Your task to perform on an android device: Search for Italian restaurants on Maps Image 0: 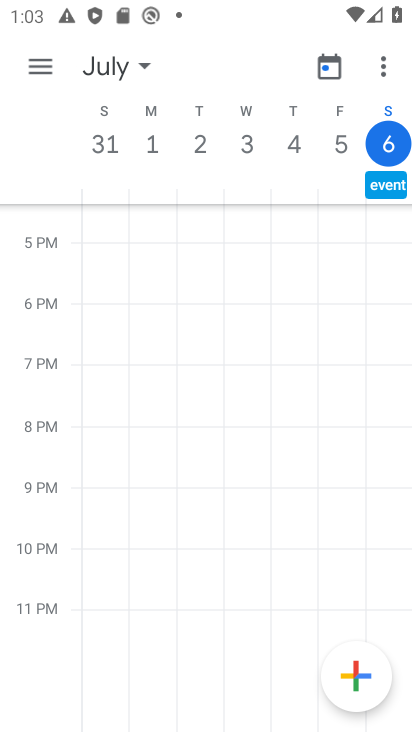
Step 0: press home button
Your task to perform on an android device: Search for Italian restaurants on Maps Image 1: 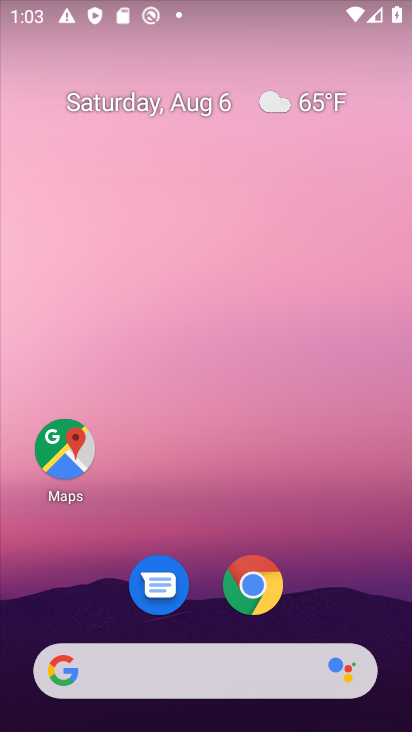
Step 1: drag from (209, 527) to (199, 0)
Your task to perform on an android device: Search for Italian restaurants on Maps Image 2: 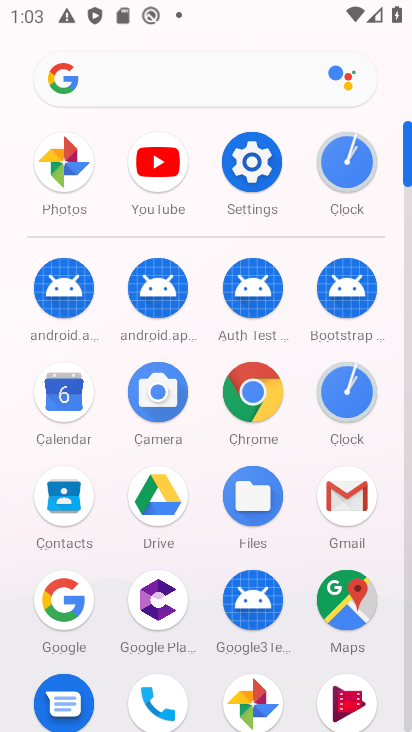
Step 2: click (347, 601)
Your task to perform on an android device: Search for Italian restaurants on Maps Image 3: 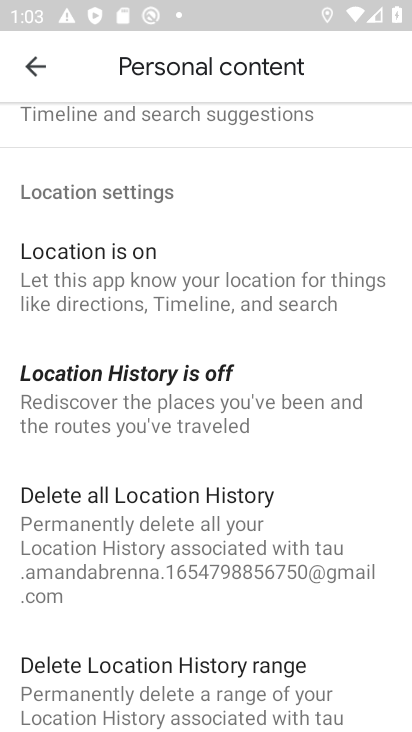
Step 3: click (40, 62)
Your task to perform on an android device: Search for Italian restaurants on Maps Image 4: 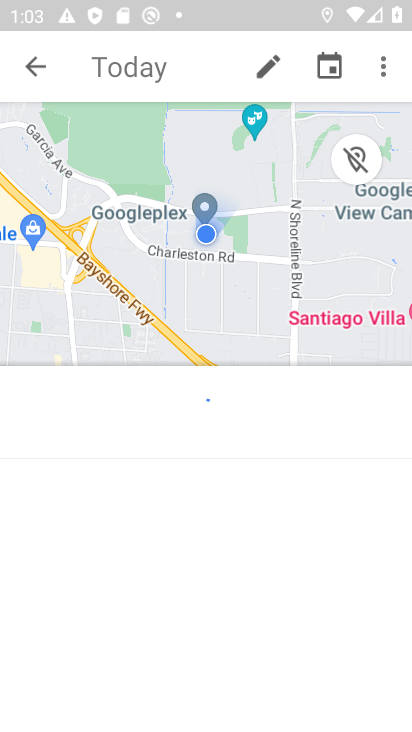
Step 4: click (40, 59)
Your task to perform on an android device: Search for Italian restaurants on Maps Image 5: 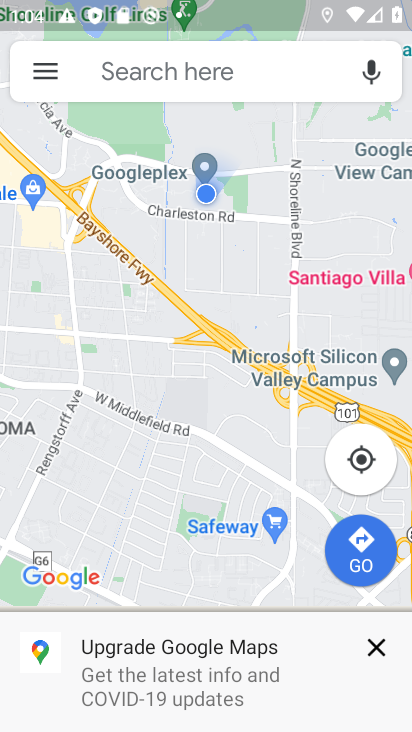
Step 5: click (155, 68)
Your task to perform on an android device: Search for Italian restaurants on Maps Image 6: 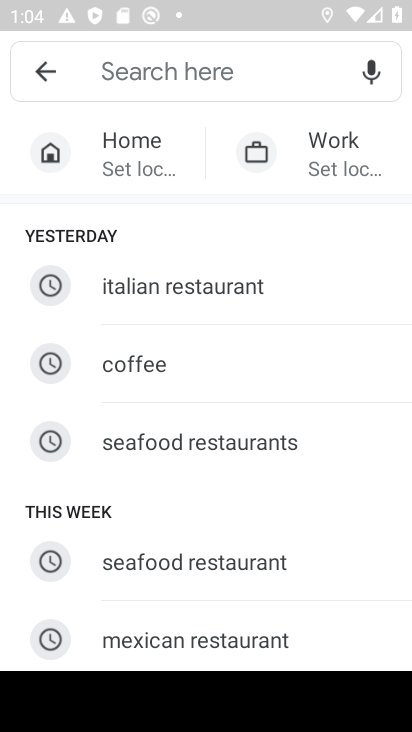
Step 6: click (212, 278)
Your task to perform on an android device: Search for Italian restaurants on Maps Image 7: 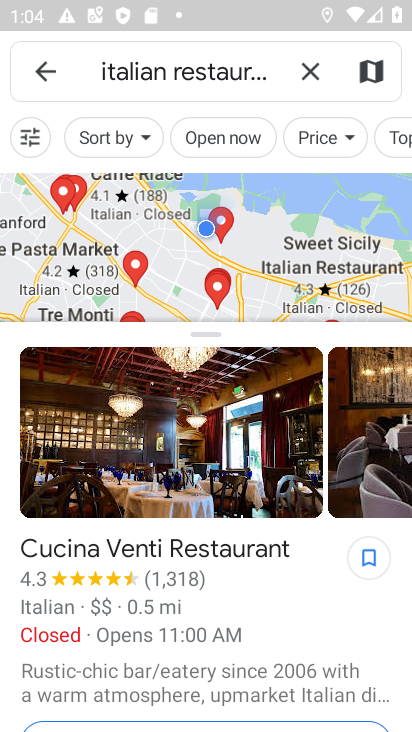
Step 7: task complete